Your task to perform on an android device: open chrome and create a bookmark for the current page Image 0: 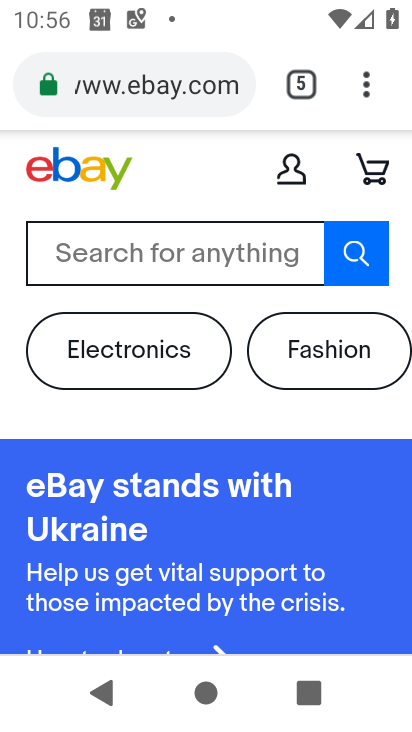
Step 0: drag from (370, 83) to (85, 177)
Your task to perform on an android device: open chrome and create a bookmark for the current page Image 1: 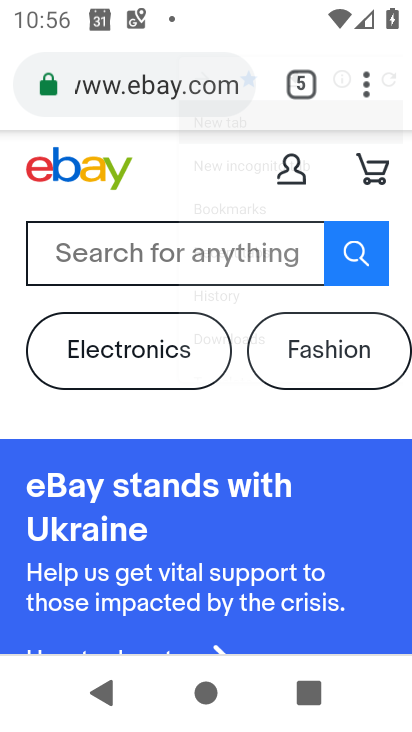
Step 1: click (88, 175)
Your task to perform on an android device: open chrome and create a bookmark for the current page Image 2: 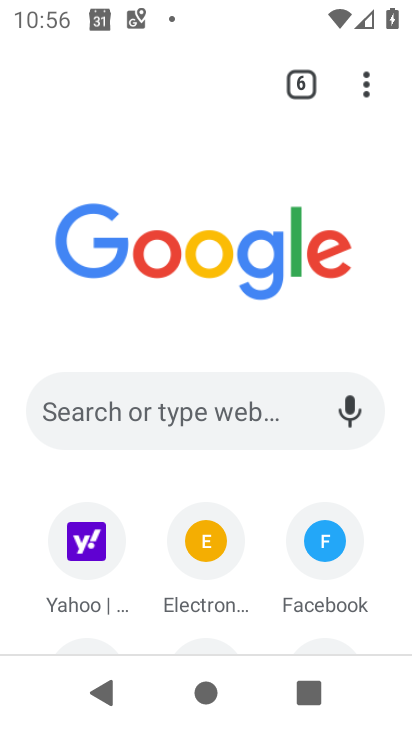
Step 2: click (96, 405)
Your task to perform on an android device: open chrome and create a bookmark for the current page Image 3: 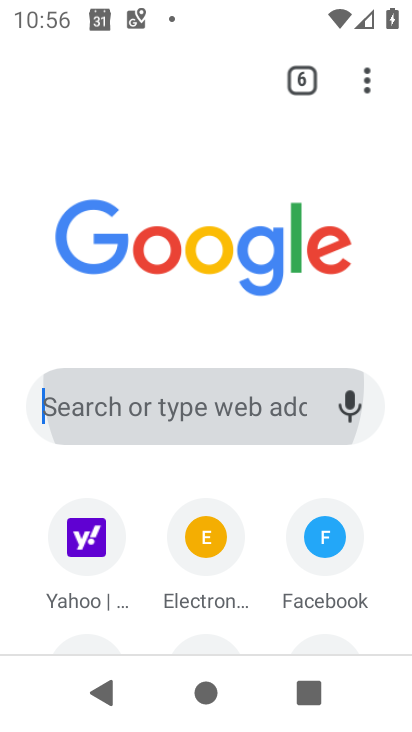
Step 3: click (99, 403)
Your task to perform on an android device: open chrome and create a bookmark for the current page Image 4: 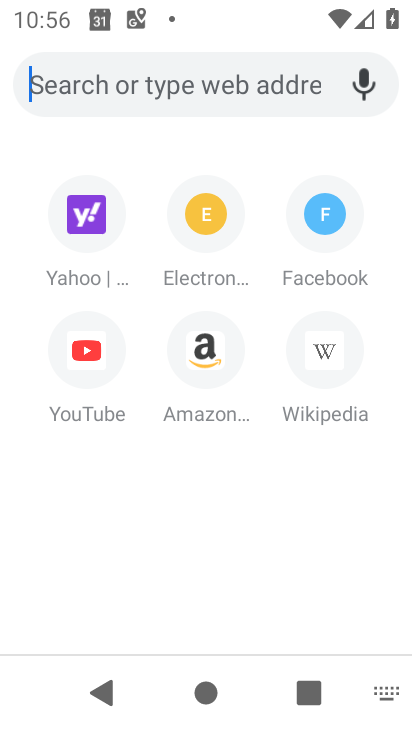
Step 4: click (99, 403)
Your task to perform on an android device: open chrome and create a bookmark for the current page Image 5: 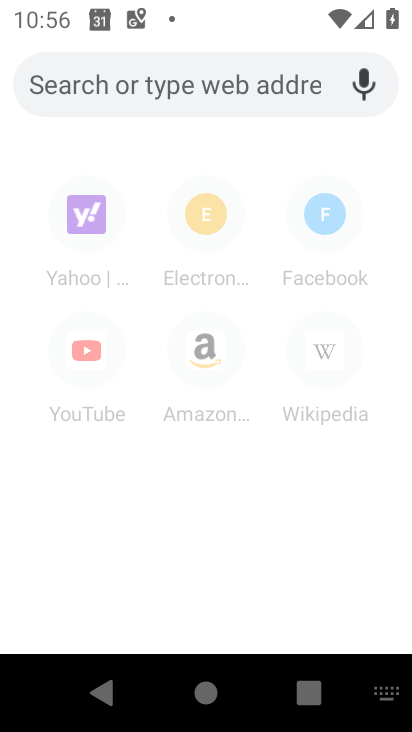
Step 5: click (99, 403)
Your task to perform on an android device: open chrome and create a bookmark for the current page Image 6: 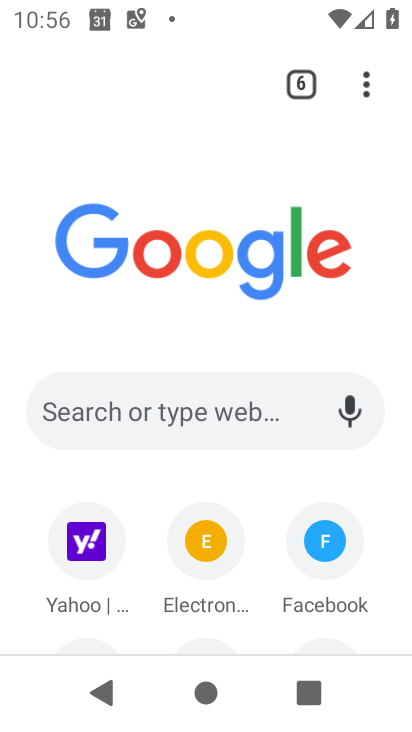
Step 6: click (86, 405)
Your task to perform on an android device: open chrome and create a bookmark for the current page Image 7: 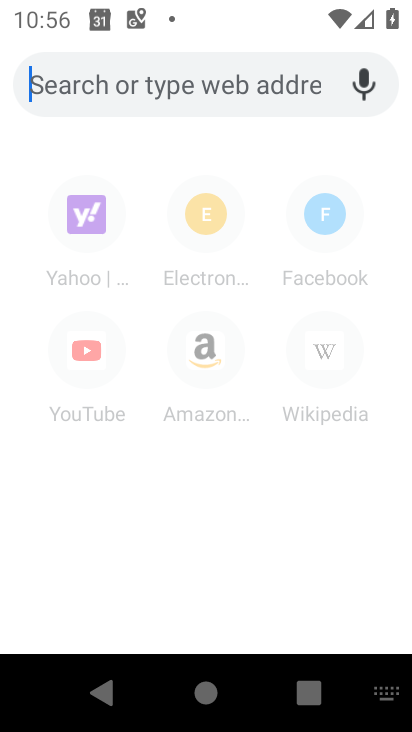
Step 7: type "www.snapdeal.com"
Your task to perform on an android device: open chrome and create a bookmark for the current page Image 8: 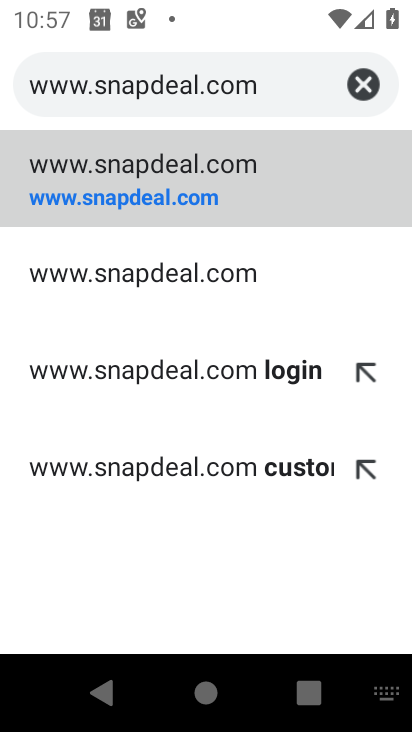
Step 8: click (152, 205)
Your task to perform on an android device: open chrome and create a bookmark for the current page Image 9: 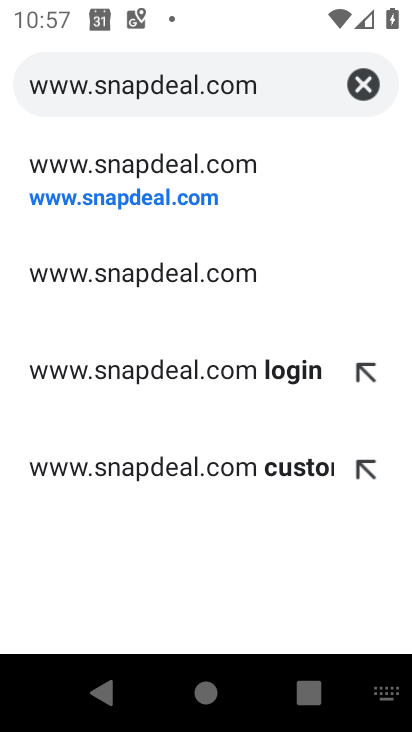
Step 9: click (140, 205)
Your task to perform on an android device: open chrome and create a bookmark for the current page Image 10: 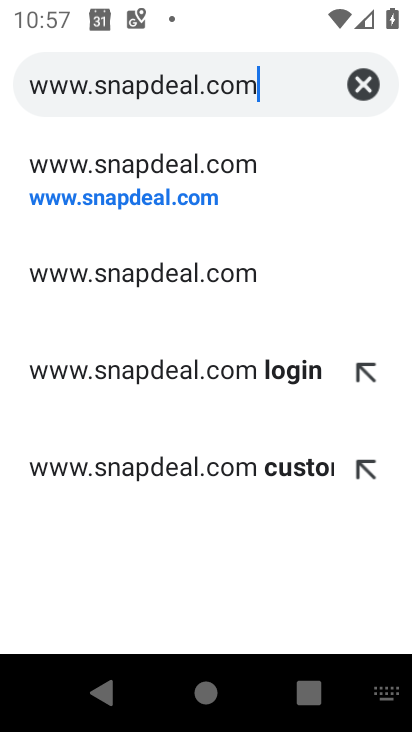
Step 10: click (104, 200)
Your task to perform on an android device: open chrome and create a bookmark for the current page Image 11: 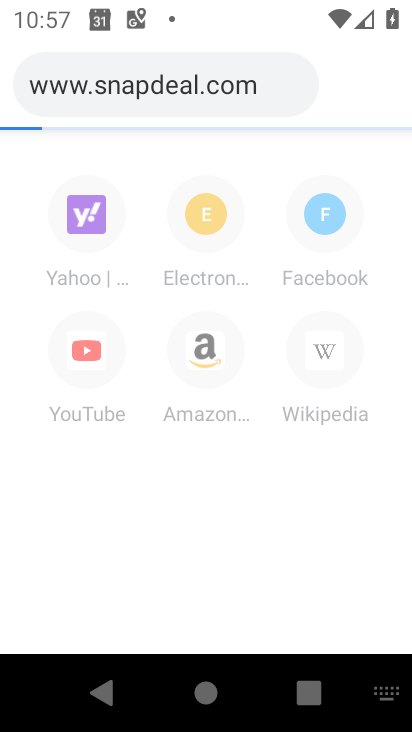
Step 11: click (105, 200)
Your task to perform on an android device: open chrome and create a bookmark for the current page Image 12: 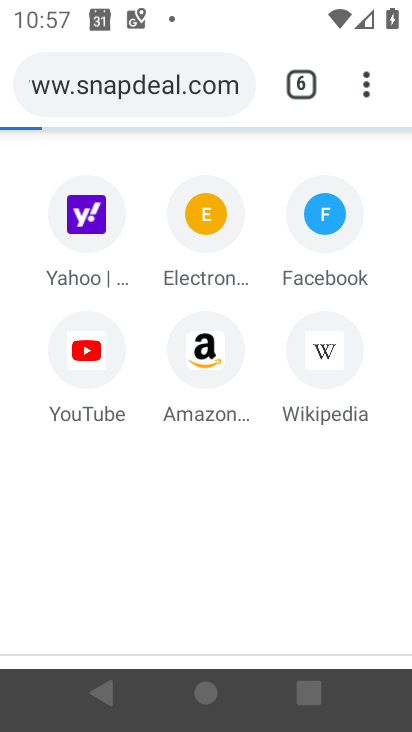
Step 12: click (105, 200)
Your task to perform on an android device: open chrome and create a bookmark for the current page Image 13: 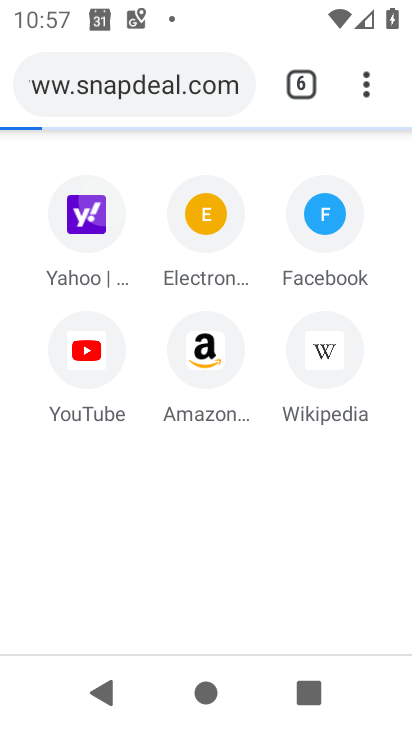
Step 13: click (104, 201)
Your task to perform on an android device: open chrome and create a bookmark for the current page Image 14: 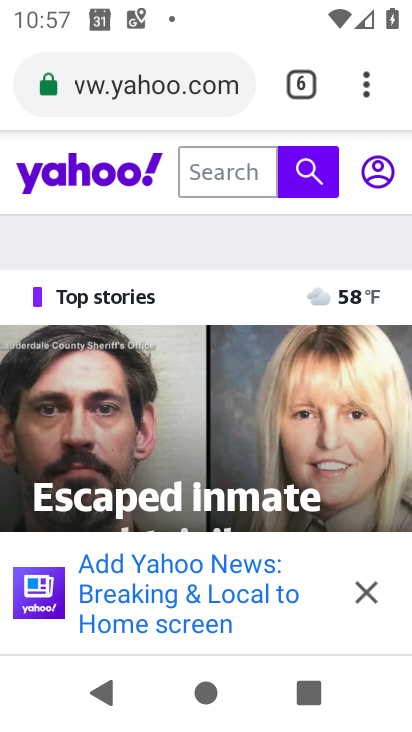
Step 14: task complete